Your task to perform on an android device: Show me recent news Image 0: 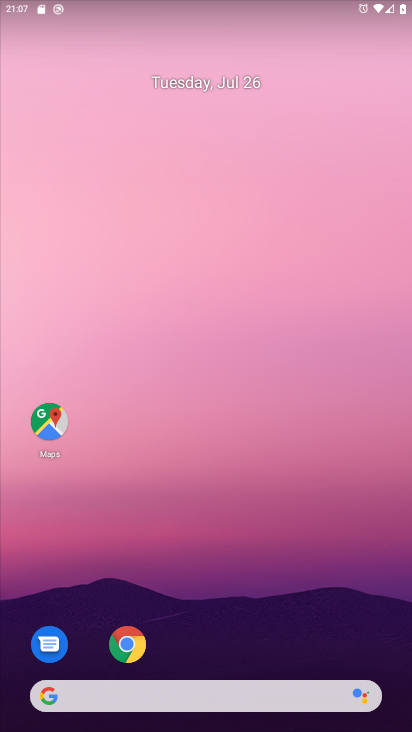
Step 0: drag from (163, 659) to (233, 237)
Your task to perform on an android device: Show me recent news Image 1: 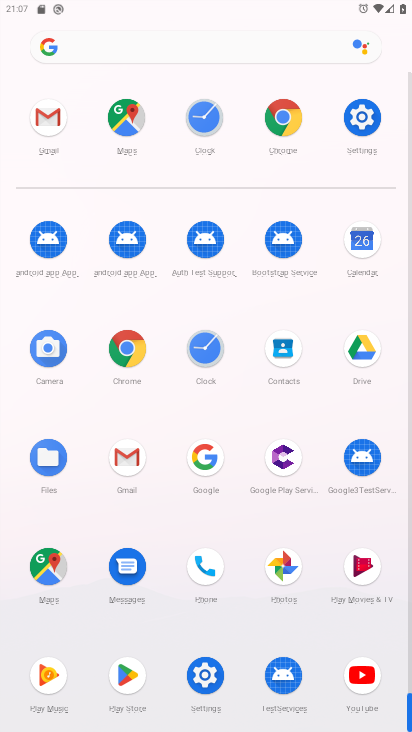
Step 1: click (280, 110)
Your task to perform on an android device: Show me recent news Image 2: 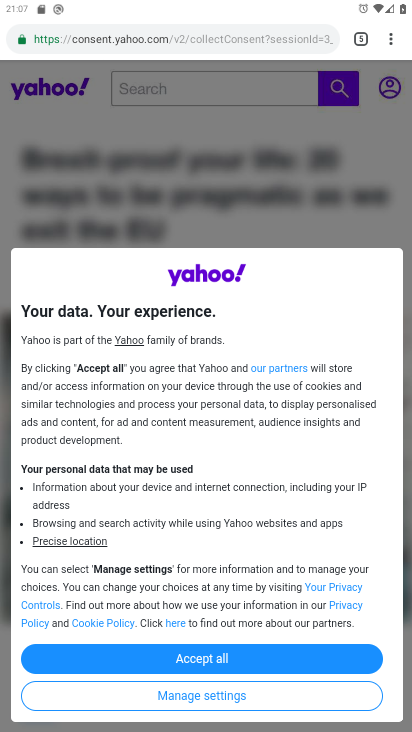
Step 2: click (401, 37)
Your task to perform on an android device: Show me recent news Image 3: 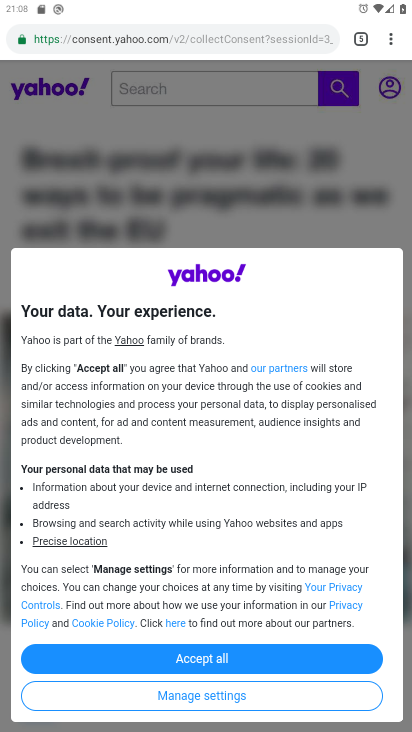
Step 3: click (395, 44)
Your task to perform on an android device: Show me recent news Image 4: 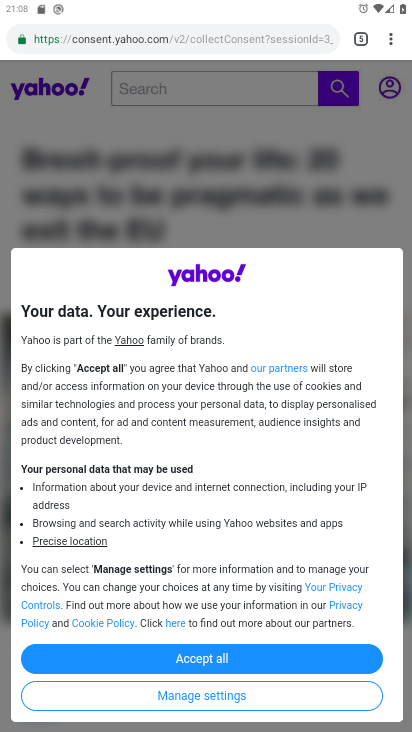
Step 4: click (393, 38)
Your task to perform on an android device: Show me recent news Image 5: 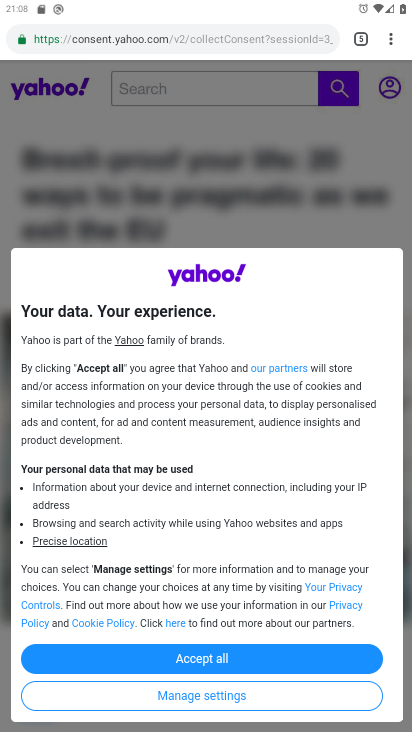
Step 5: click (393, 38)
Your task to perform on an android device: Show me recent news Image 6: 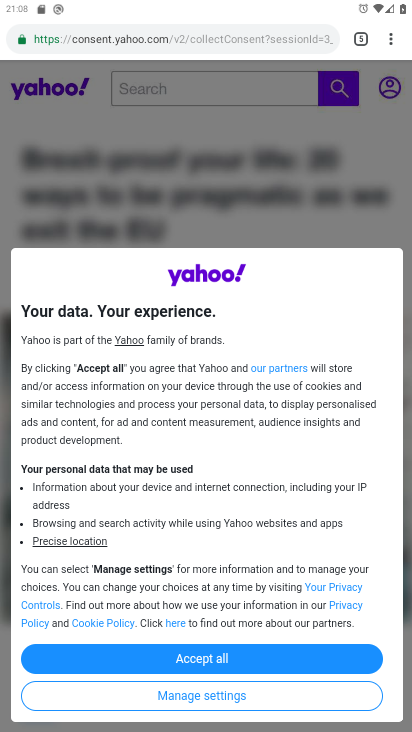
Step 6: click (393, 38)
Your task to perform on an android device: Show me recent news Image 7: 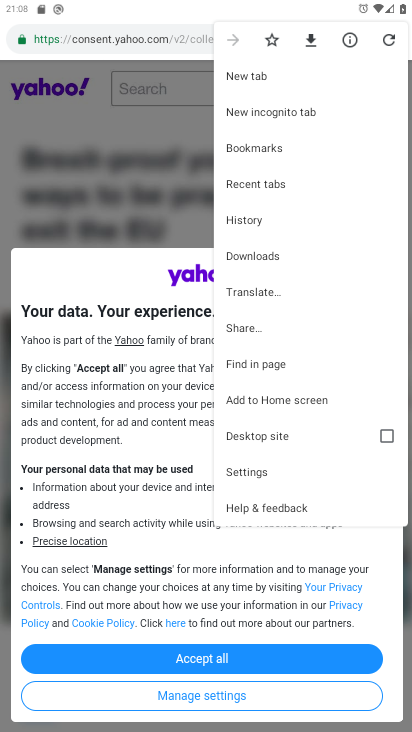
Step 7: click (237, 70)
Your task to perform on an android device: Show me recent news Image 8: 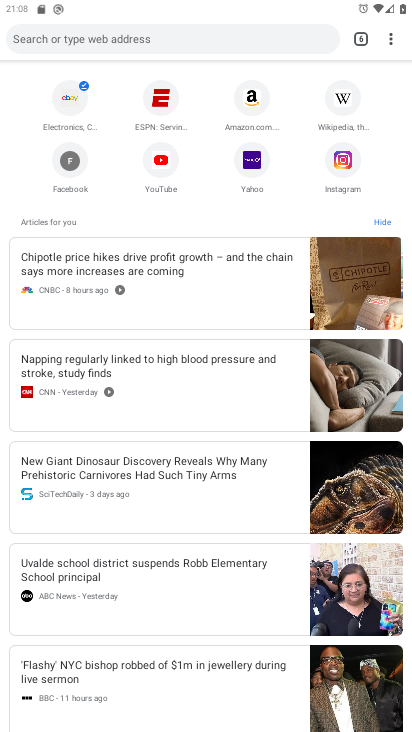
Step 8: click (207, 27)
Your task to perform on an android device: Show me recent news Image 9: 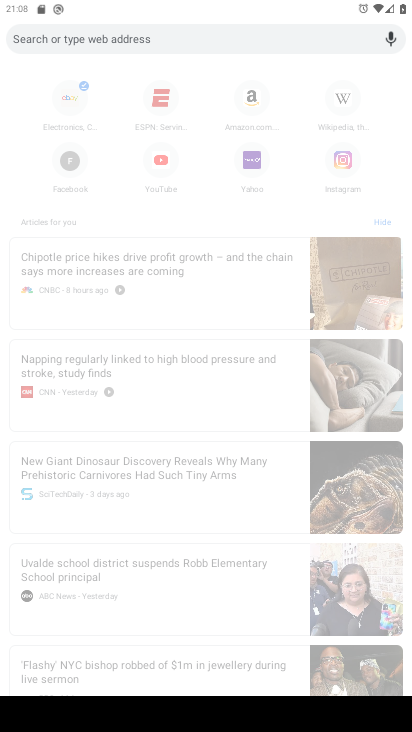
Step 9: type "Show me recent news "
Your task to perform on an android device: Show me recent news Image 10: 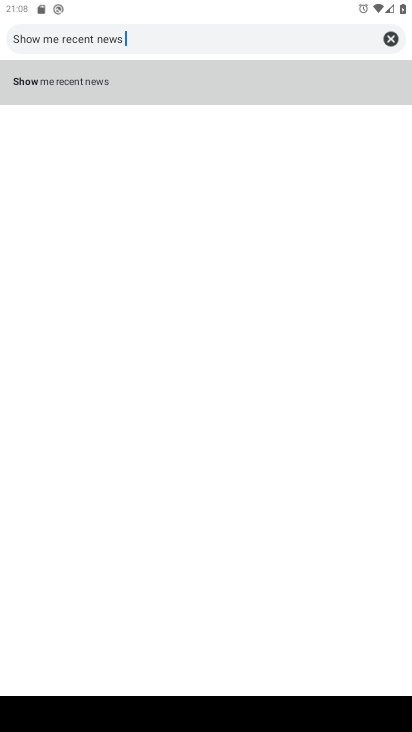
Step 10: click (126, 77)
Your task to perform on an android device: Show me recent news Image 11: 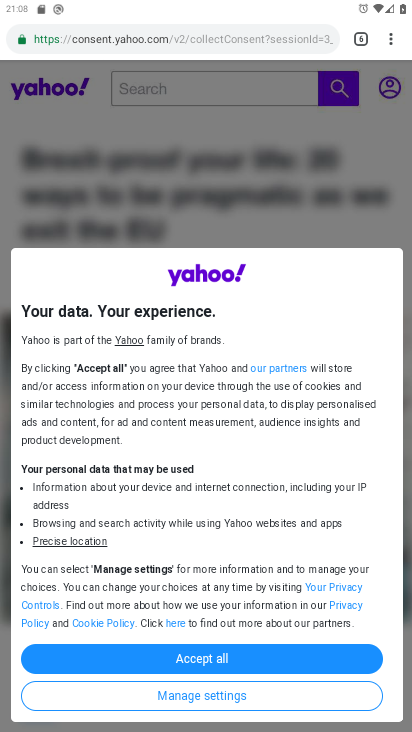
Step 11: task complete